Your task to perform on an android device: Look up the best rated book on Goodreads Image 0: 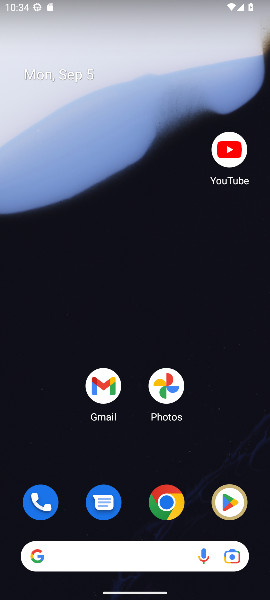
Step 0: drag from (209, 280) to (119, 28)
Your task to perform on an android device: Look up the best rated book on Goodreads Image 1: 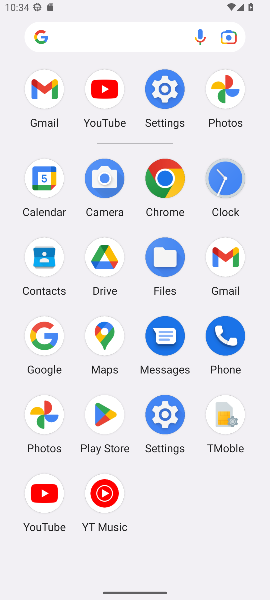
Step 1: click (46, 339)
Your task to perform on an android device: Look up the best rated book on Goodreads Image 2: 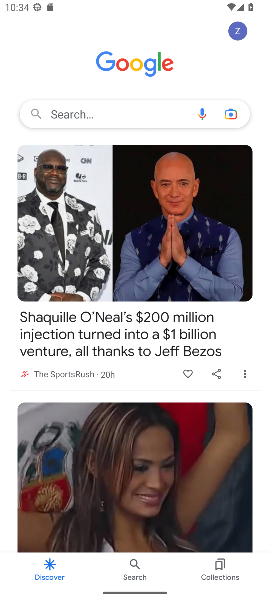
Step 2: click (88, 115)
Your task to perform on an android device: Look up the best rated book on Goodreads Image 3: 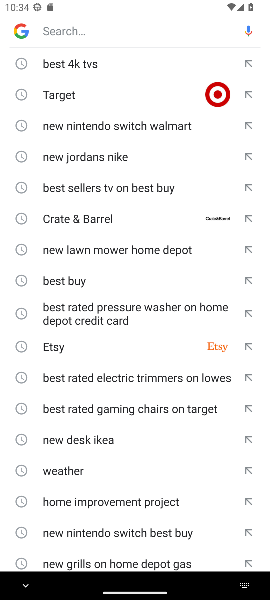
Step 3: type "best rated book on Goodreads"
Your task to perform on an android device: Look up the best rated book on Goodreads Image 4: 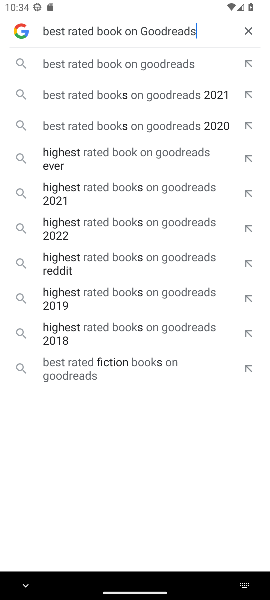
Step 4: click (146, 71)
Your task to perform on an android device: Look up the best rated book on Goodreads Image 5: 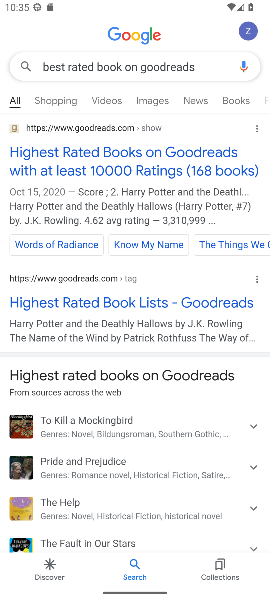
Step 5: task complete